Your task to perform on an android device: open chrome privacy settings Image 0: 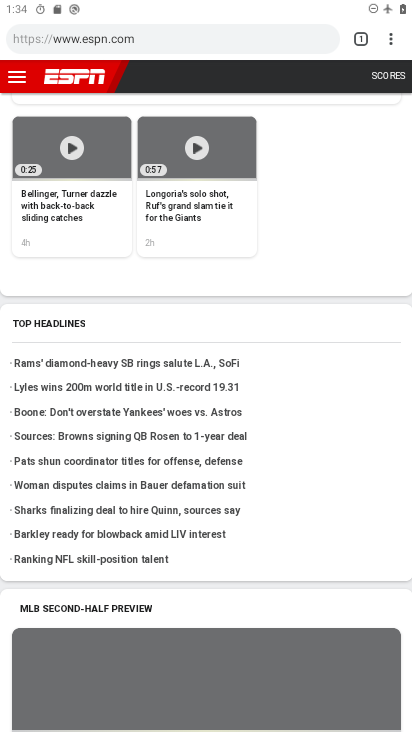
Step 0: click (394, 49)
Your task to perform on an android device: open chrome privacy settings Image 1: 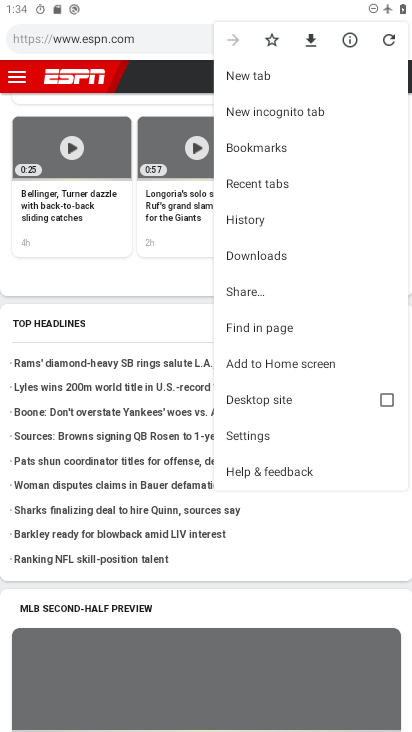
Step 1: click (261, 442)
Your task to perform on an android device: open chrome privacy settings Image 2: 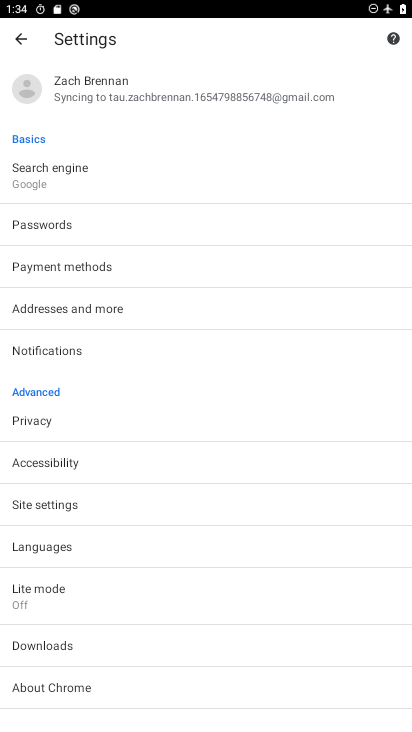
Step 2: click (44, 412)
Your task to perform on an android device: open chrome privacy settings Image 3: 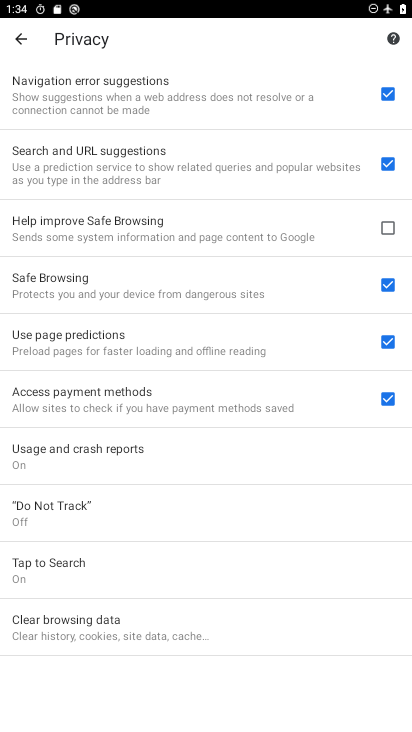
Step 3: task complete